Your task to perform on an android device: Open sound settings Image 0: 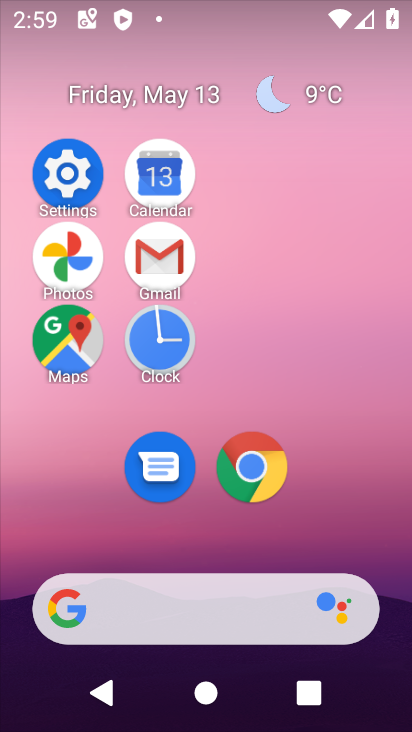
Step 0: click (99, 159)
Your task to perform on an android device: Open sound settings Image 1: 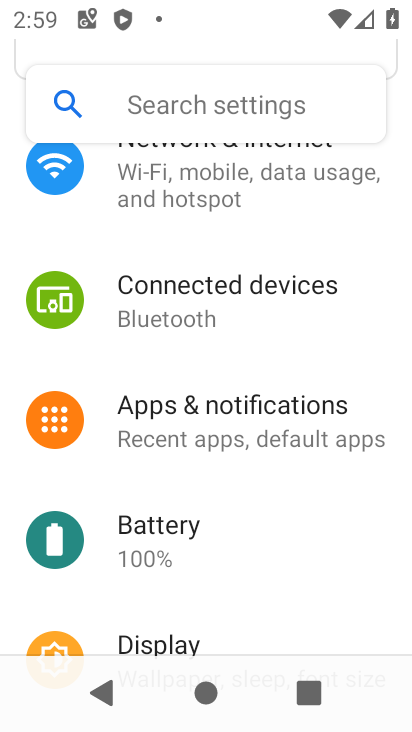
Step 1: drag from (239, 594) to (208, 158)
Your task to perform on an android device: Open sound settings Image 2: 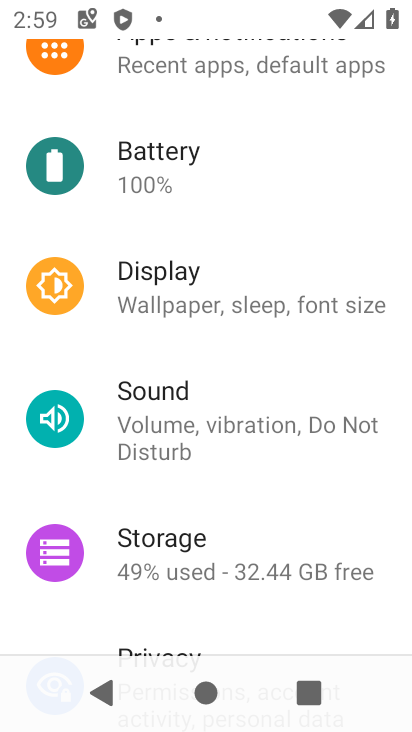
Step 2: click (251, 409)
Your task to perform on an android device: Open sound settings Image 3: 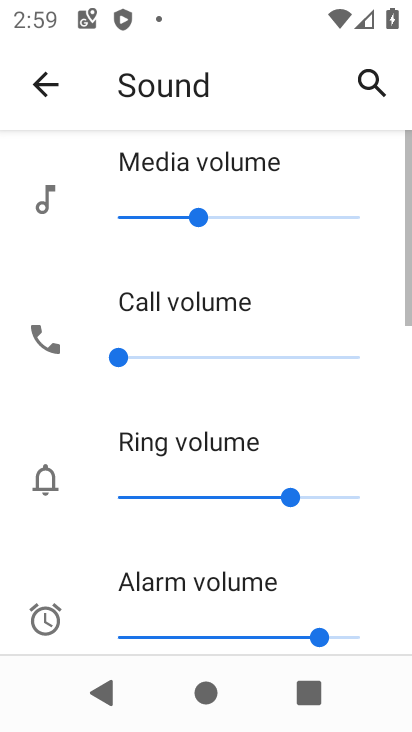
Step 3: task complete